Your task to perform on an android device: toggle pop-ups in chrome Image 0: 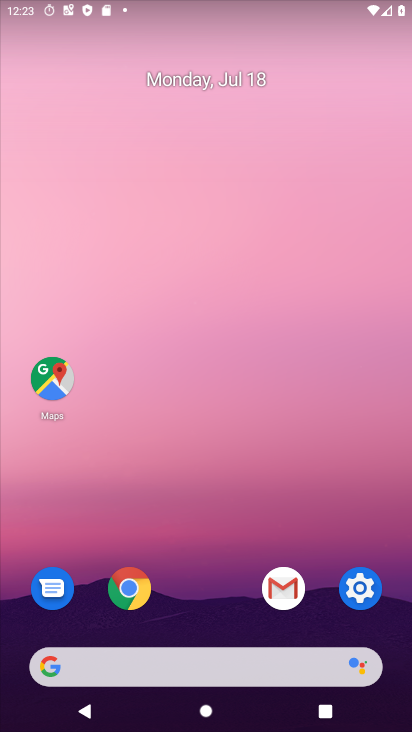
Step 0: press home button
Your task to perform on an android device: toggle pop-ups in chrome Image 1: 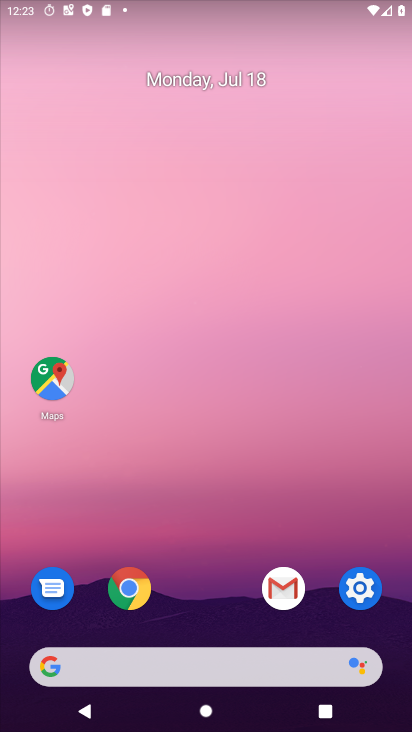
Step 1: click (124, 572)
Your task to perform on an android device: toggle pop-ups in chrome Image 2: 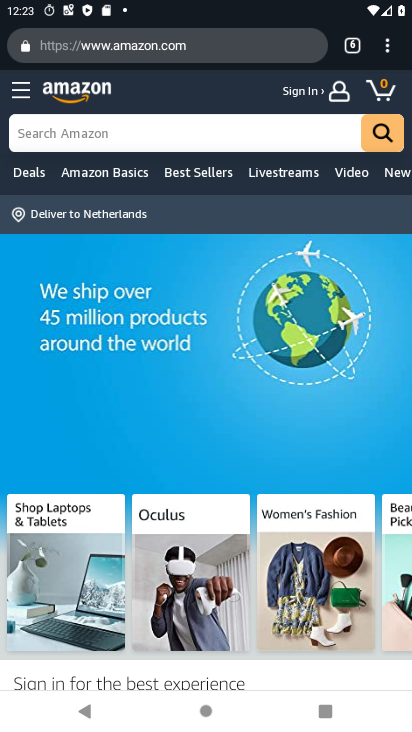
Step 2: click (377, 52)
Your task to perform on an android device: toggle pop-ups in chrome Image 3: 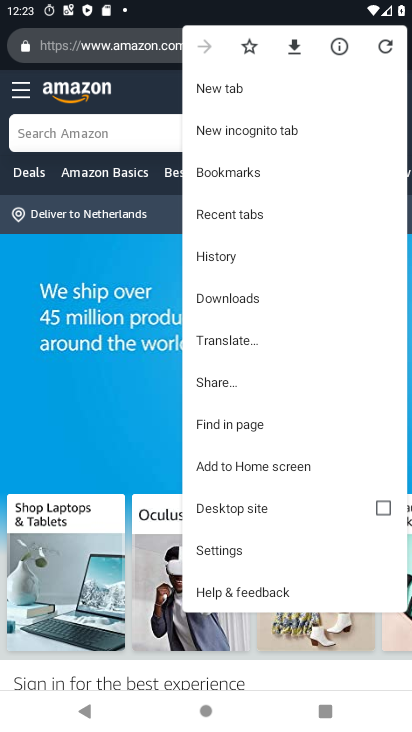
Step 3: click (248, 548)
Your task to perform on an android device: toggle pop-ups in chrome Image 4: 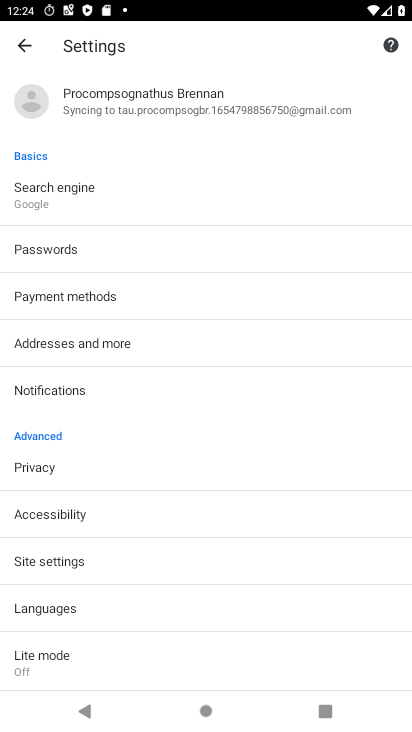
Step 4: click (92, 559)
Your task to perform on an android device: toggle pop-ups in chrome Image 5: 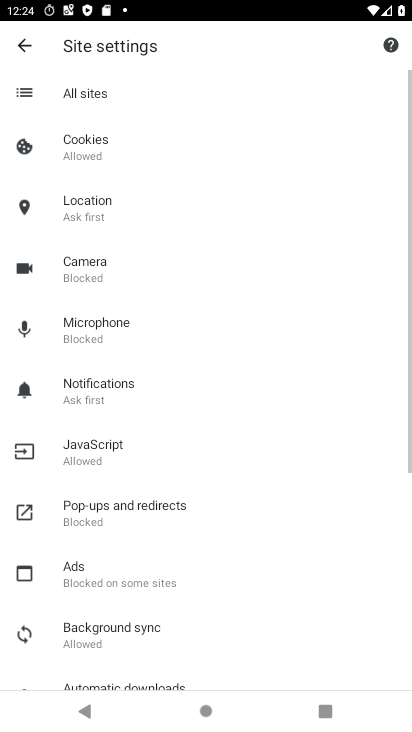
Step 5: click (87, 459)
Your task to perform on an android device: toggle pop-ups in chrome Image 6: 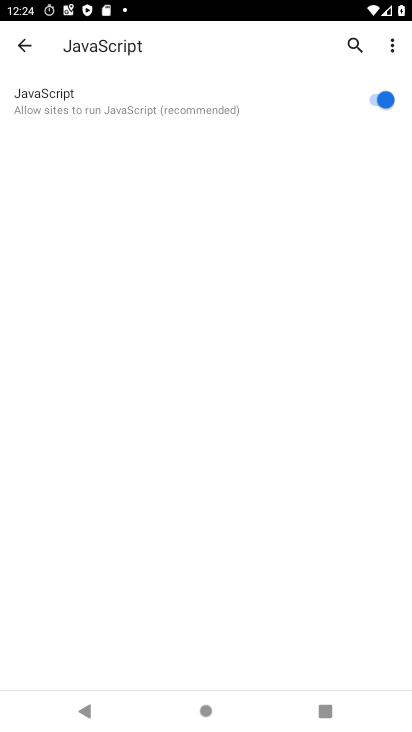
Step 6: click (383, 96)
Your task to perform on an android device: toggle pop-ups in chrome Image 7: 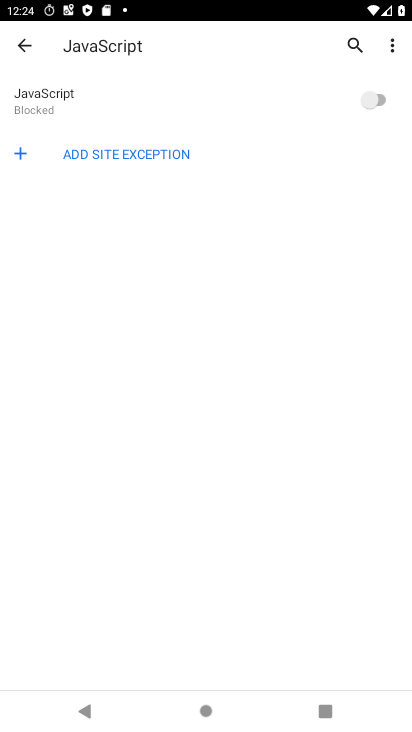
Step 7: click (378, 97)
Your task to perform on an android device: toggle pop-ups in chrome Image 8: 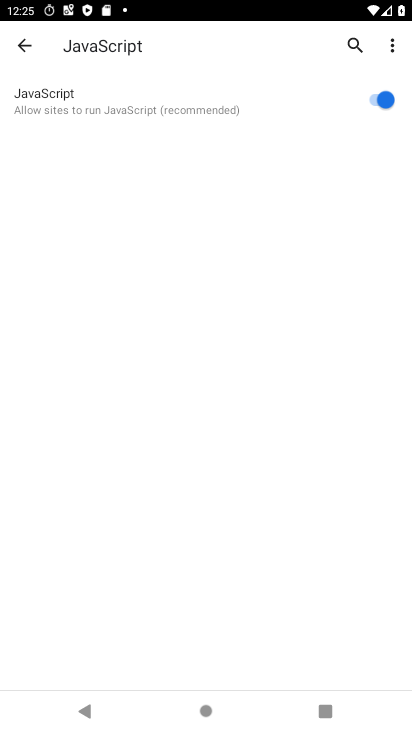
Step 8: task complete